Your task to perform on an android device: find snoozed emails in the gmail app Image 0: 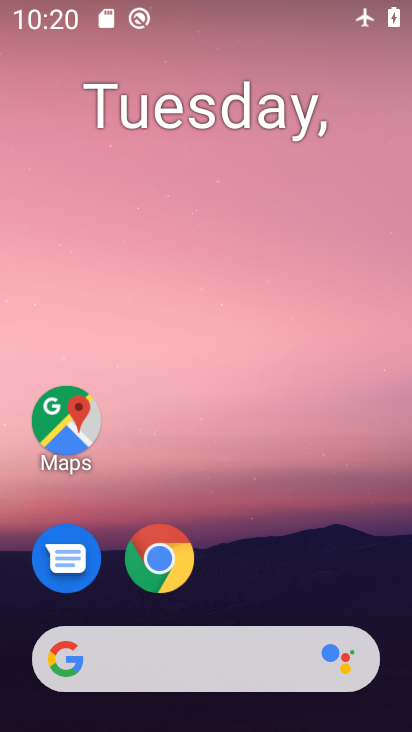
Step 0: drag from (322, 543) to (327, 92)
Your task to perform on an android device: find snoozed emails in the gmail app Image 1: 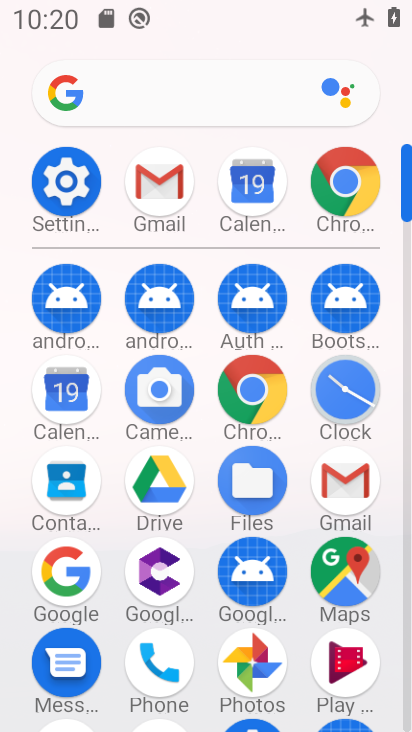
Step 1: click (357, 479)
Your task to perform on an android device: find snoozed emails in the gmail app Image 2: 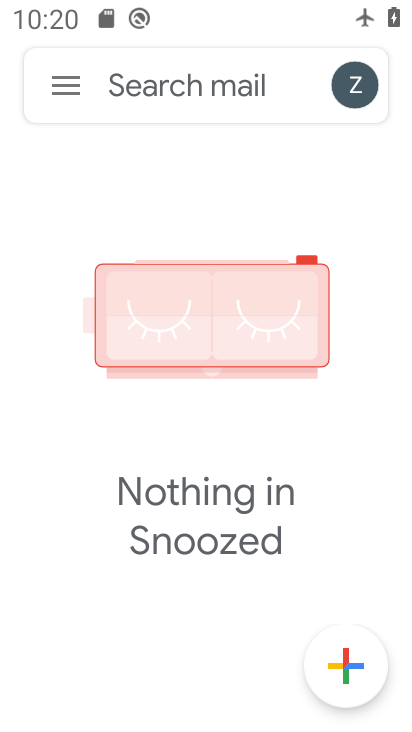
Step 2: click (69, 84)
Your task to perform on an android device: find snoozed emails in the gmail app Image 3: 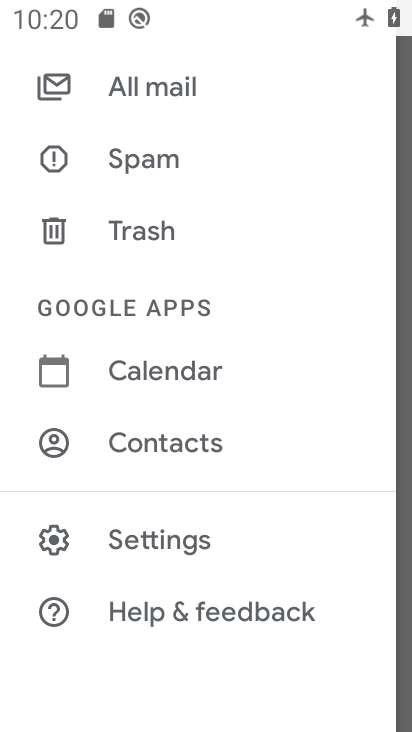
Step 3: drag from (284, 256) to (282, 360)
Your task to perform on an android device: find snoozed emails in the gmail app Image 4: 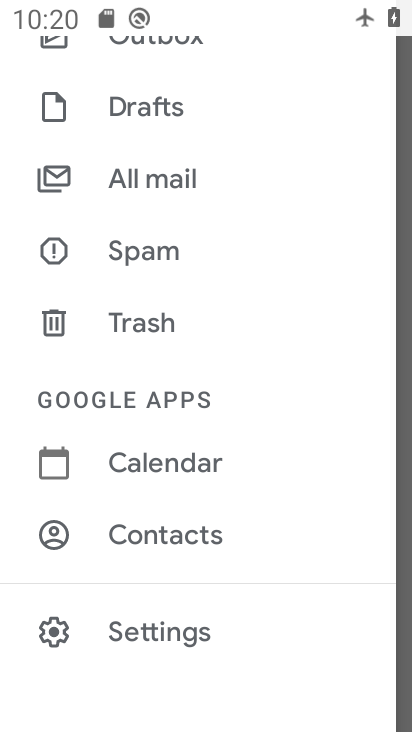
Step 4: drag from (308, 191) to (308, 301)
Your task to perform on an android device: find snoozed emails in the gmail app Image 5: 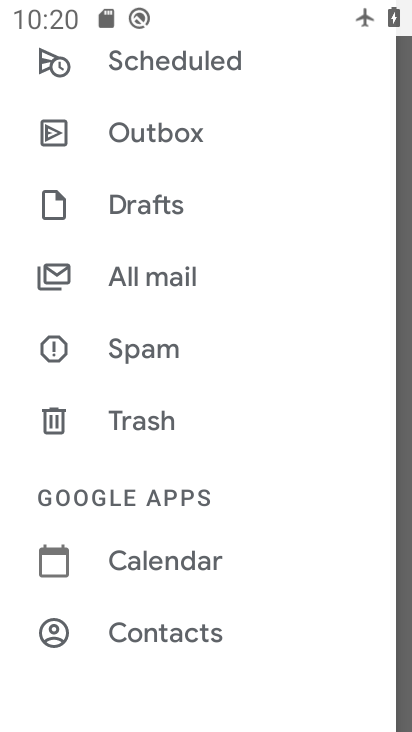
Step 5: drag from (310, 184) to (312, 309)
Your task to perform on an android device: find snoozed emails in the gmail app Image 6: 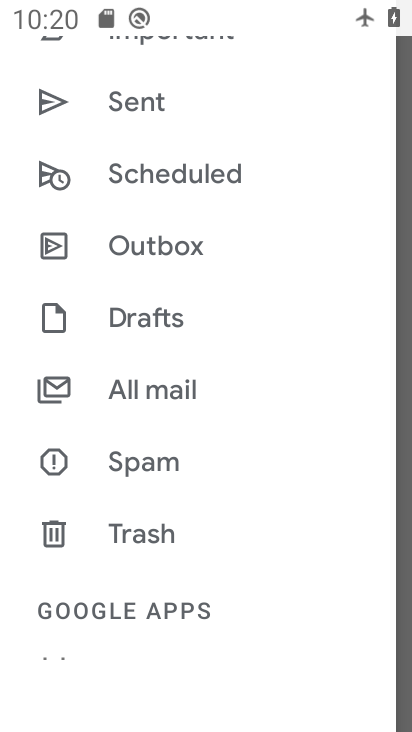
Step 6: drag from (302, 135) to (297, 303)
Your task to perform on an android device: find snoozed emails in the gmail app Image 7: 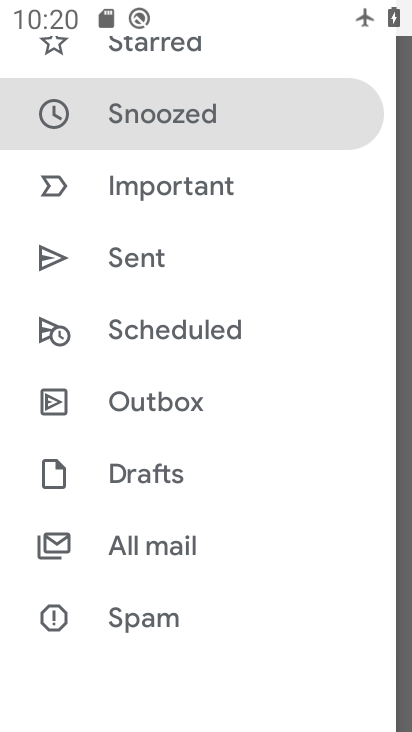
Step 7: click (285, 115)
Your task to perform on an android device: find snoozed emails in the gmail app Image 8: 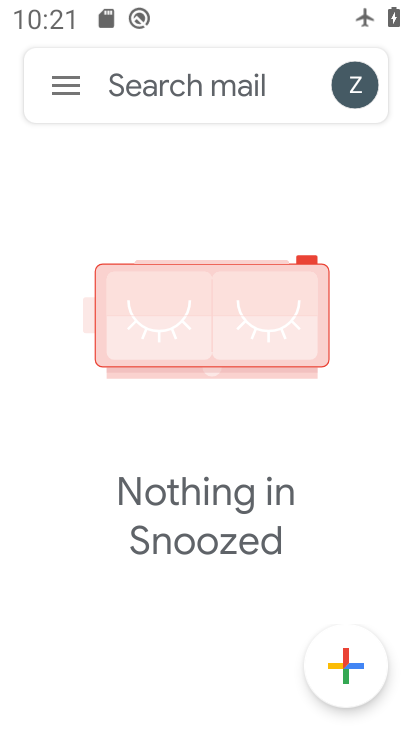
Step 8: task complete